Your task to perform on an android device: Add "razer kraken" to the cart on bestbuy.com, then select checkout. Image 0: 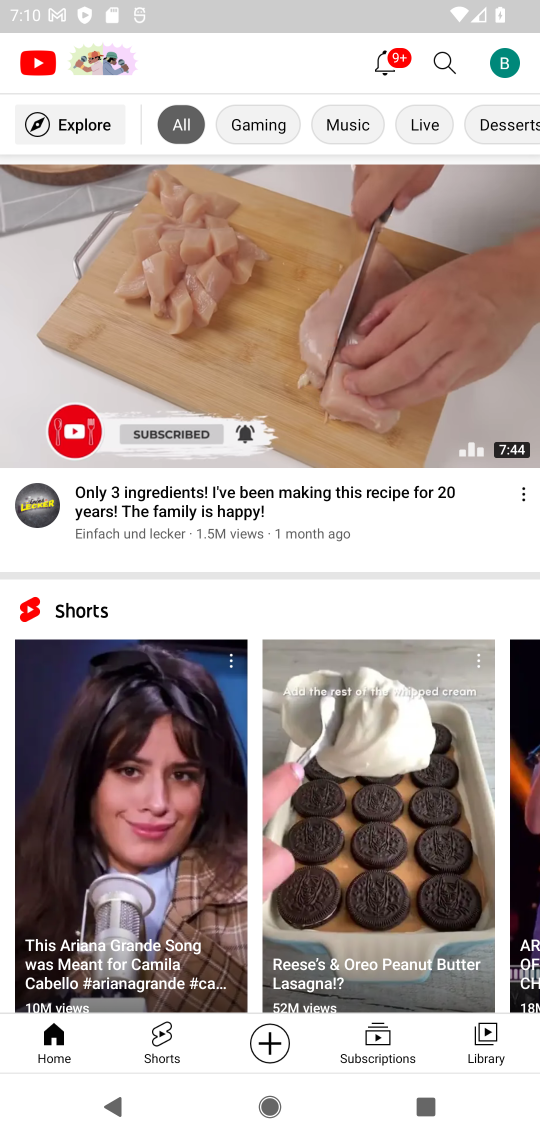
Step 0: press home button
Your task to perform on an android device: Add "razer kraken" to the cart on bestbuy.com, then select checkout. Image 1: 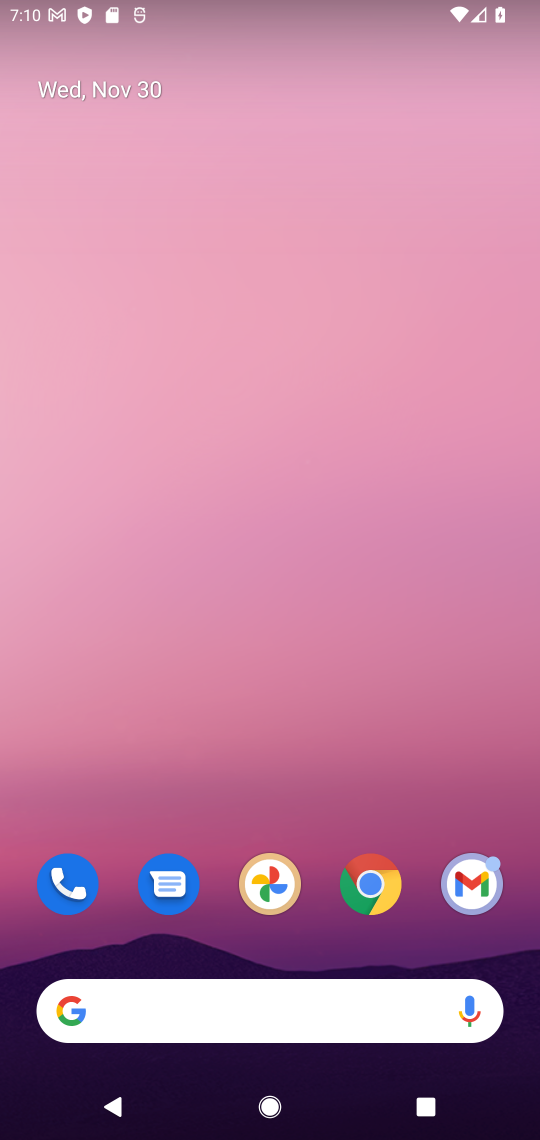
Step 1: click (365, 898)
Your task to perform on an android device: Add "razer kraken" to the cart on bestbuy.com, then select checkout. Image 2: 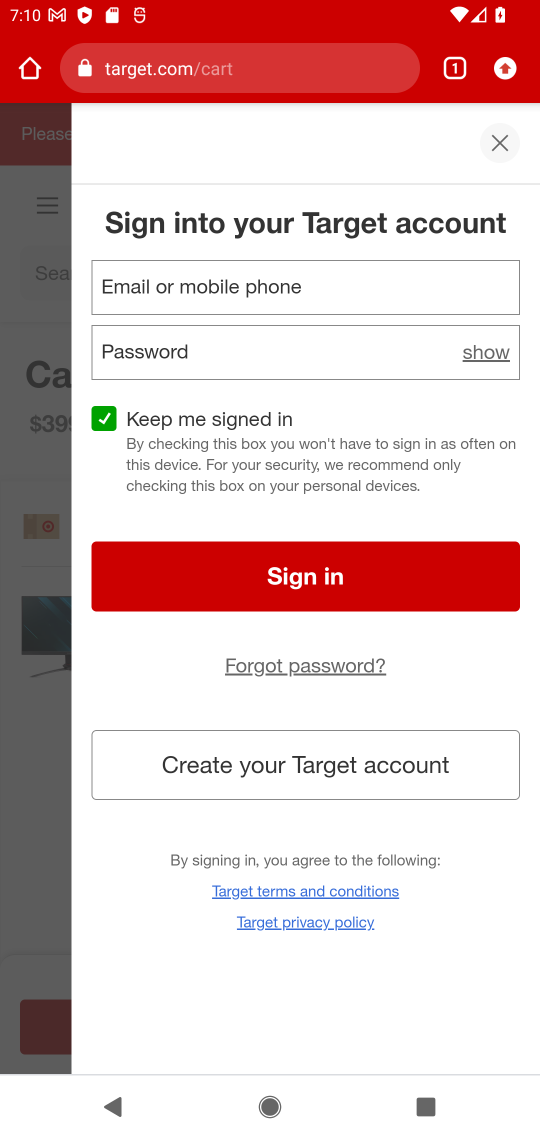
Step 2: click (162, 73)
Your task to perform on an android device: Add "razer kraken" to the cart on bestbuy.com, then select checkout. Image 3: 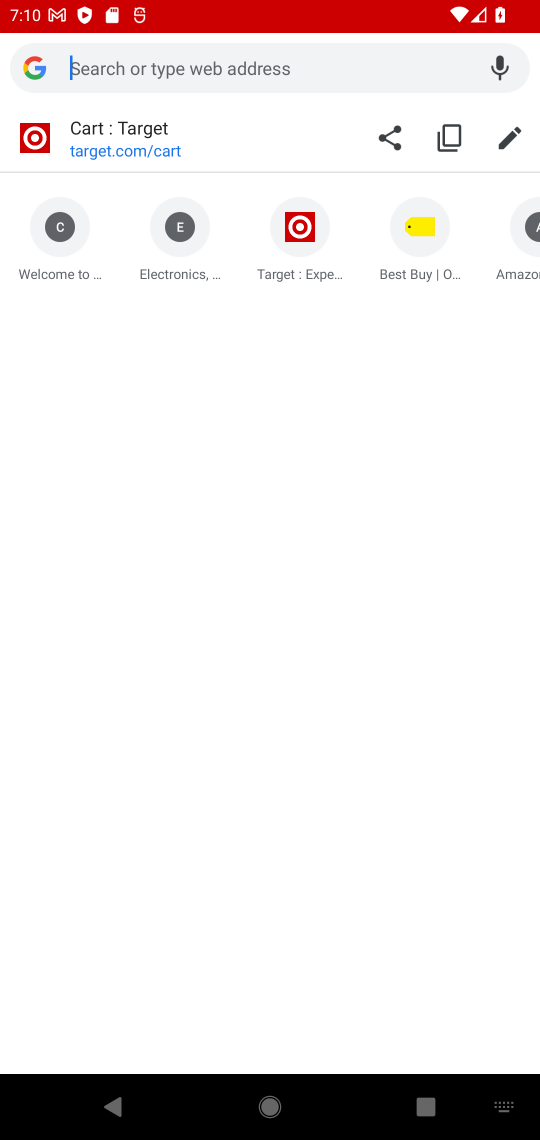
Step 3: click (417, 265)
Your task to perform on an android device: Add "razer kraken" to the cart on bestbuy.com, then select checkout. Image 4: 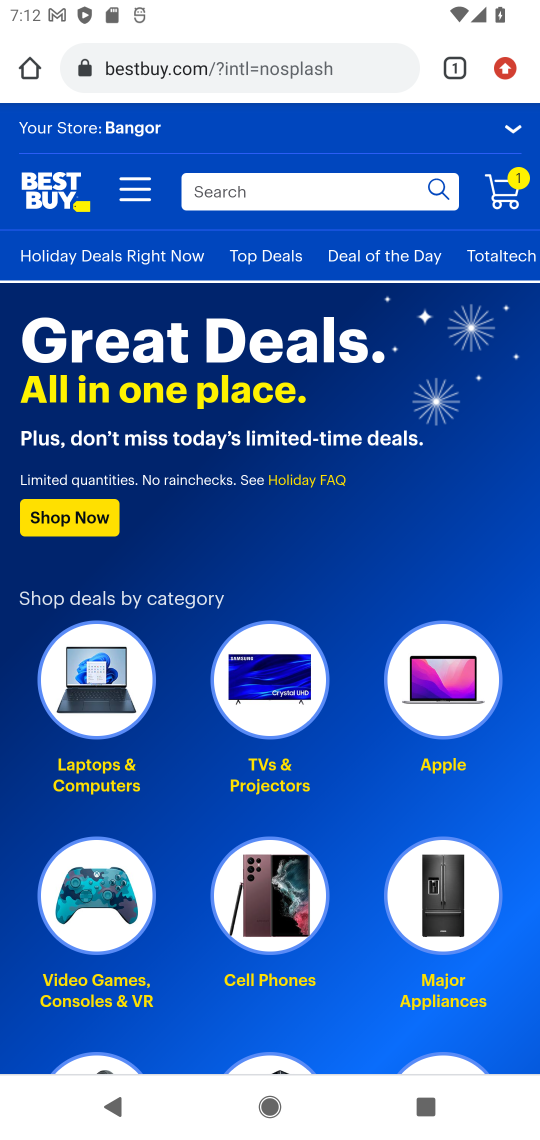
Step 4: click (245, 191)
Your task to perform on an android device: Add "razer kraken" to the cart on bestbuy.com, then select checkout. Image 5: 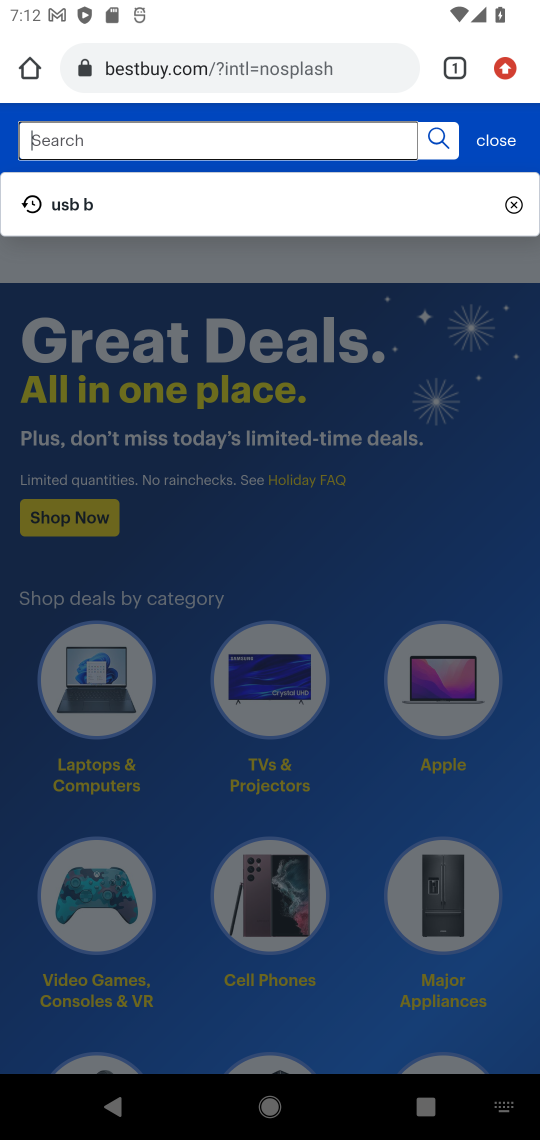
Step 5: type "razer kraken"
Your task to perform on an android device: Add "razer kraken" to the cart on bestbuy.com, then select checkout. Image 6: 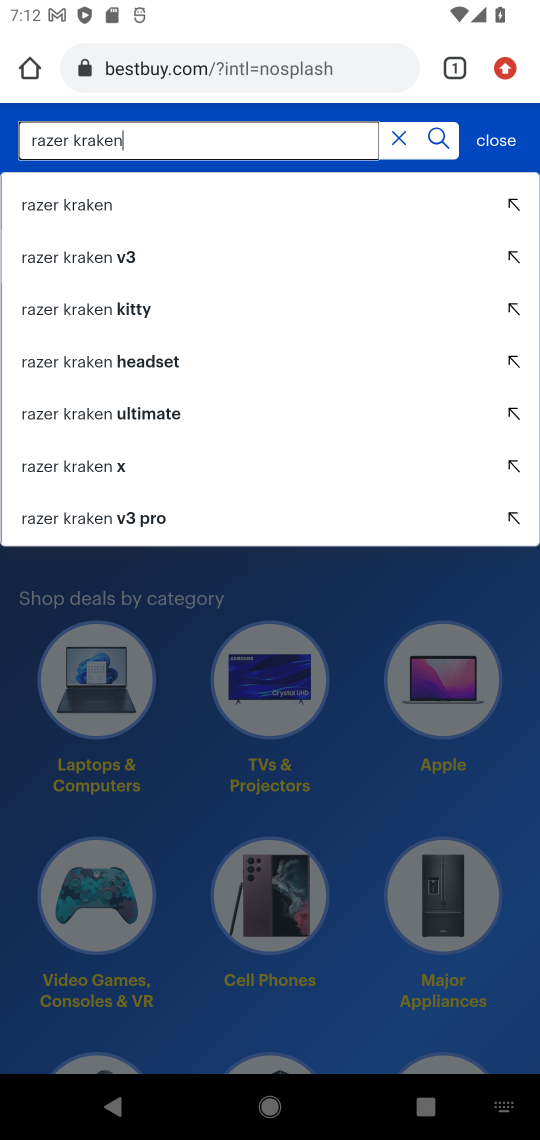
Step 6: click (65, 209)
Your task to perform on an android device: Add "razer kraken" to the cart on bestbuy.com, then select checkout. Image 7: 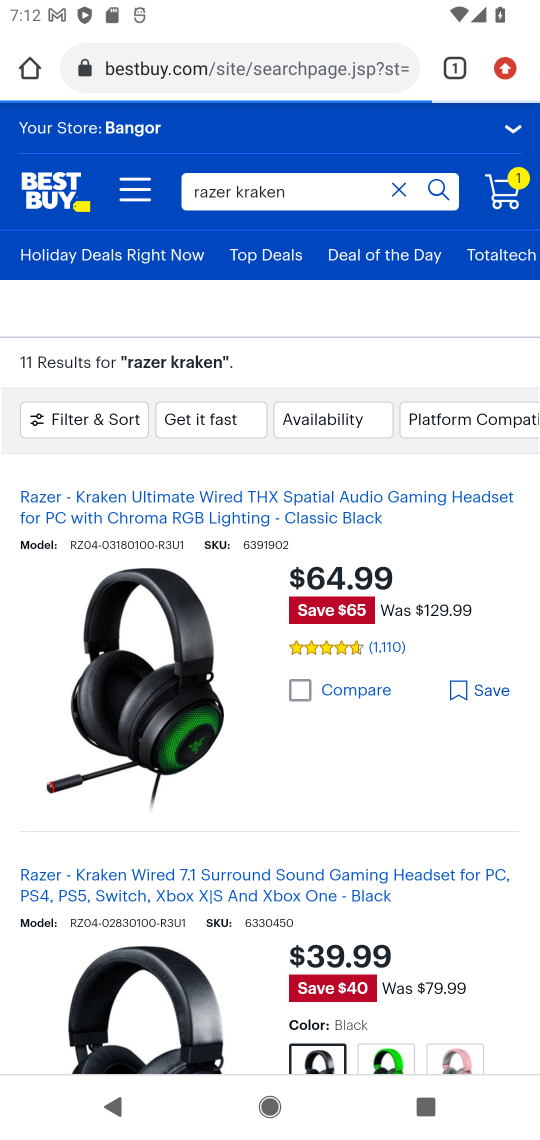
Step 7: click (504, 204)
Your task to perform on an android device: Add "razer kraken" to the cart on bestbuy.com, then select checkout. Image 8: 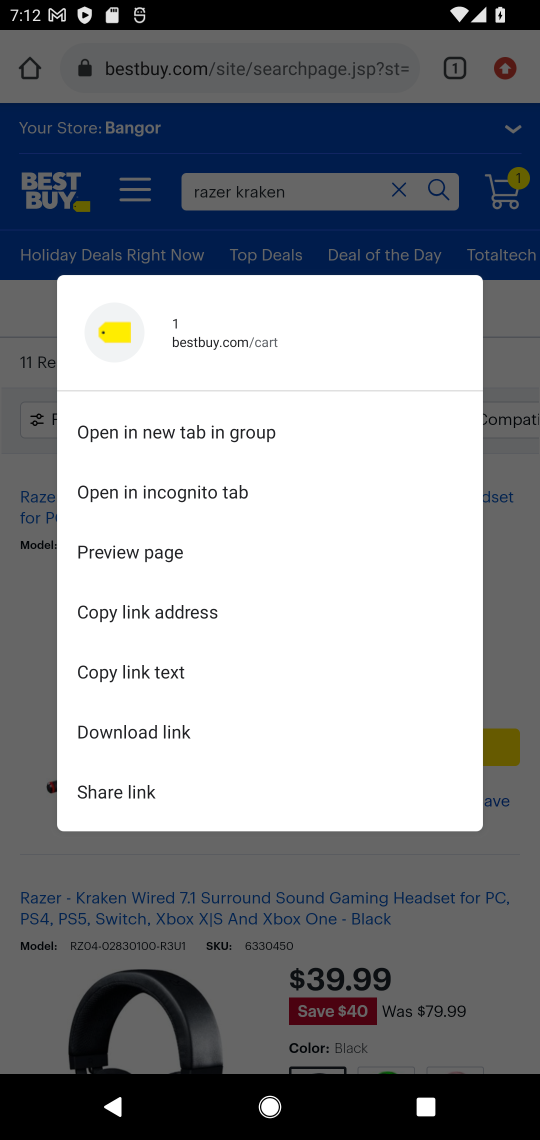
Step 8: click (504, 204)
Your task to perform on an android device: Add "razer kraken" to the cart on bestbuy.com, then select checkout. Image 9: 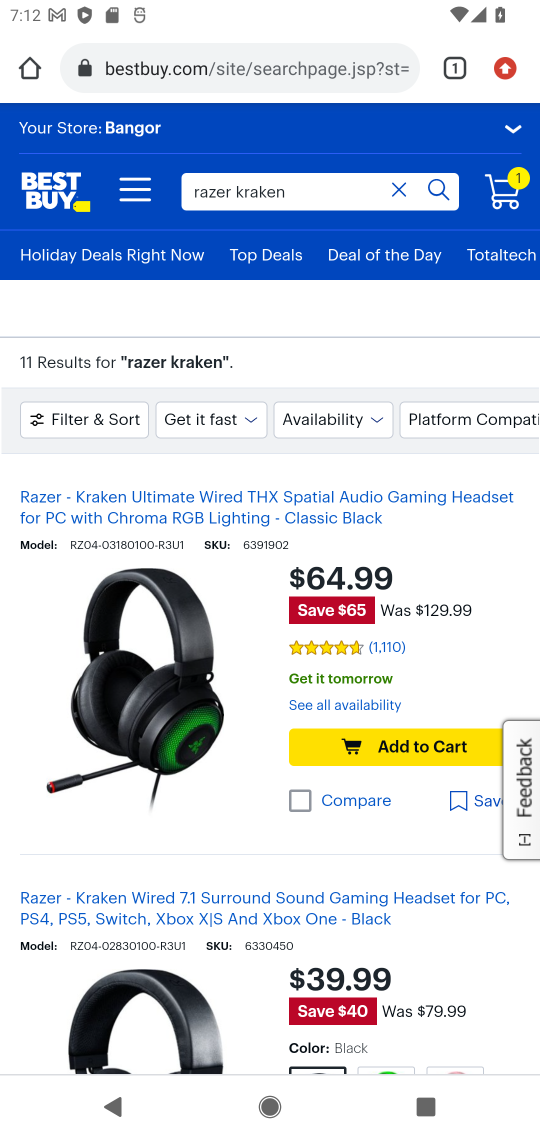
Step 9: click (501, 195)
Your task to perform on an android device: Add "razer kraken" to the cart on bestbuy.com, then select checkout. Image 10: 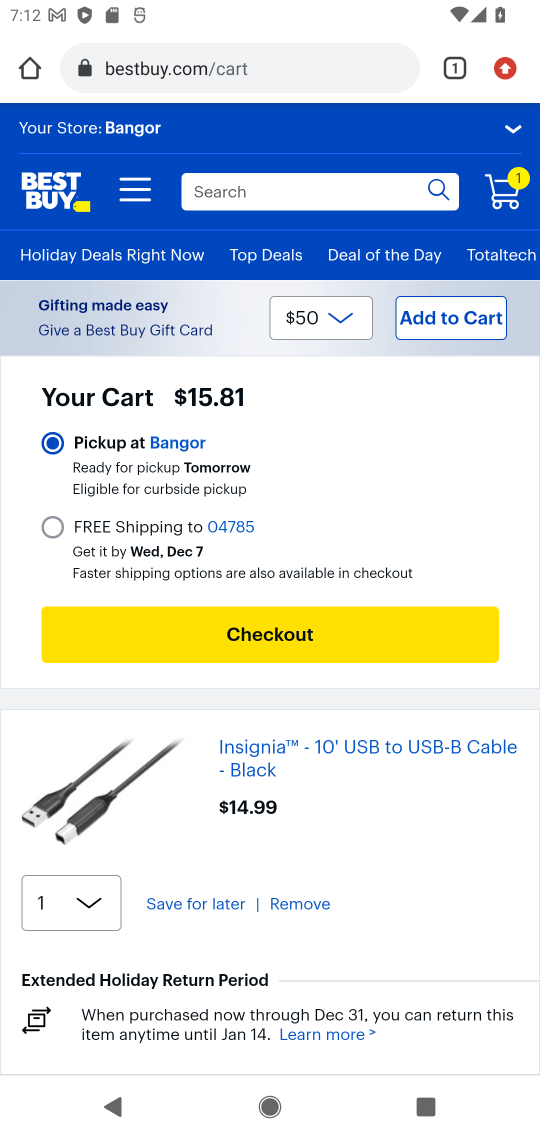
Step 10: click (225, 614)
Your task to perform on an android device: Add "razer kraken" to the cart on bestbuy.com, then select checkout. Image 11: 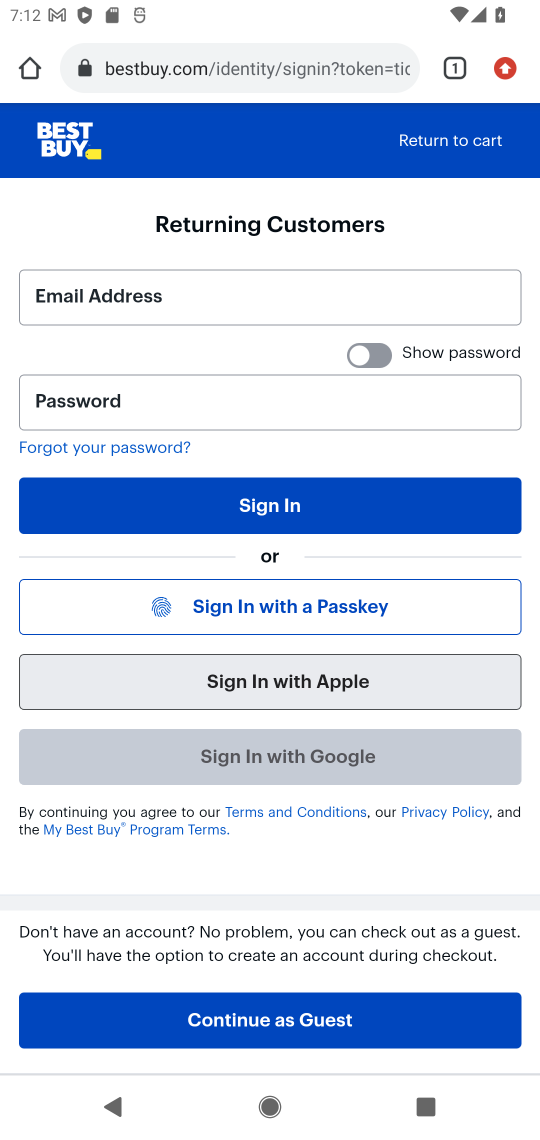
Step 11: task complete